Your task to perform on an android device: turn on the 24-hour format for clock Image 0: 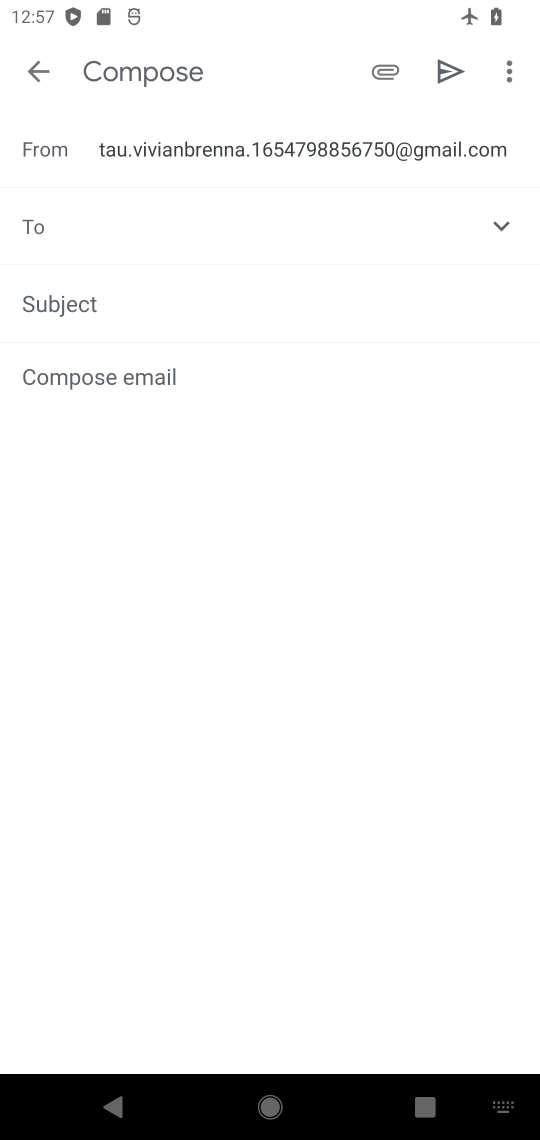
Step 0: press home button
Your task to perform on an android device: turn on the 24-hour format for clock Image 1: 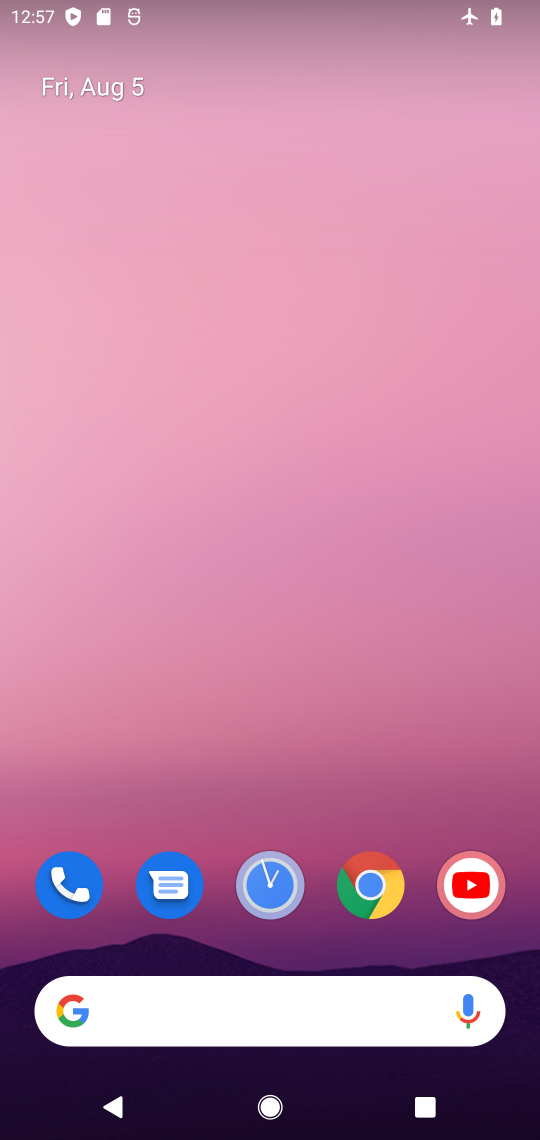
Step 1: drag from (248, 835) to (214, 148)
Your task to perform on an android device: turn on the 24-hour format for clock Image 2: 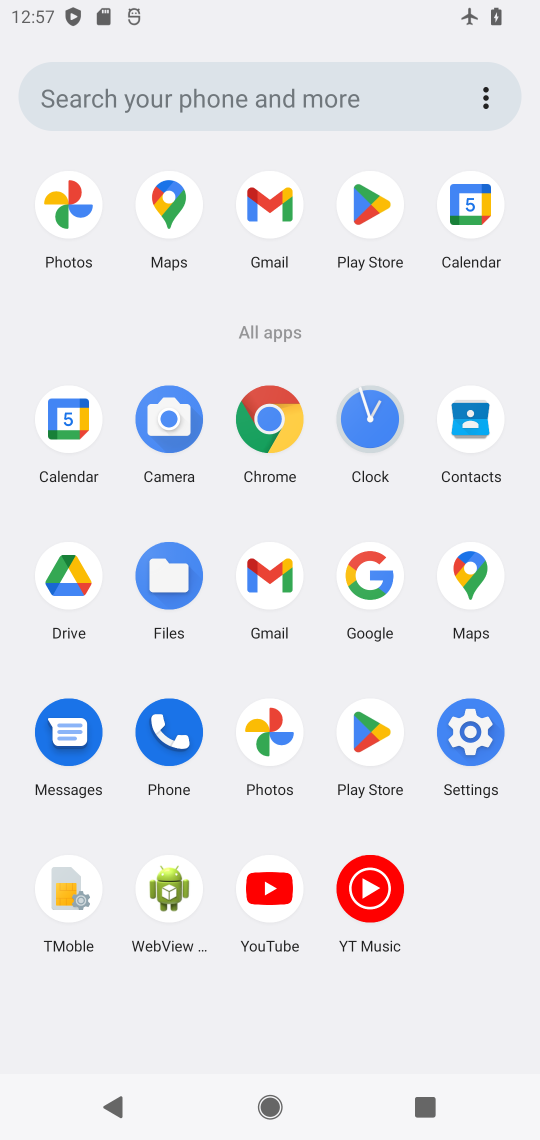
Step 2: click (355, 419)
Your task to perform on an android device: turn on the 24-hour format for clock Image 3: 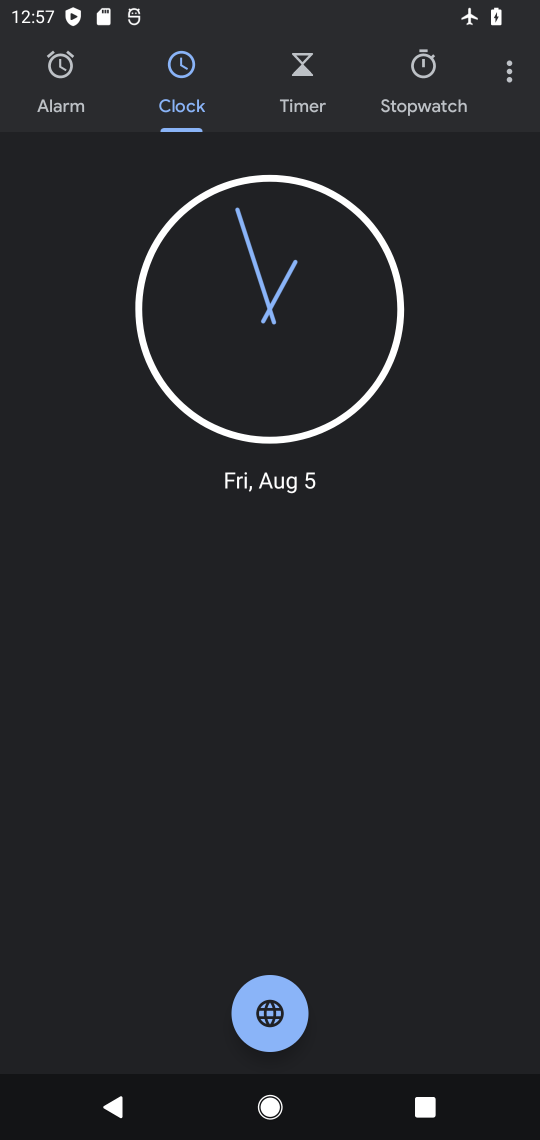
Step 3: click (514, 72)
Your task to perform on an android device: turn on the 24-hour format for clock Image 4: 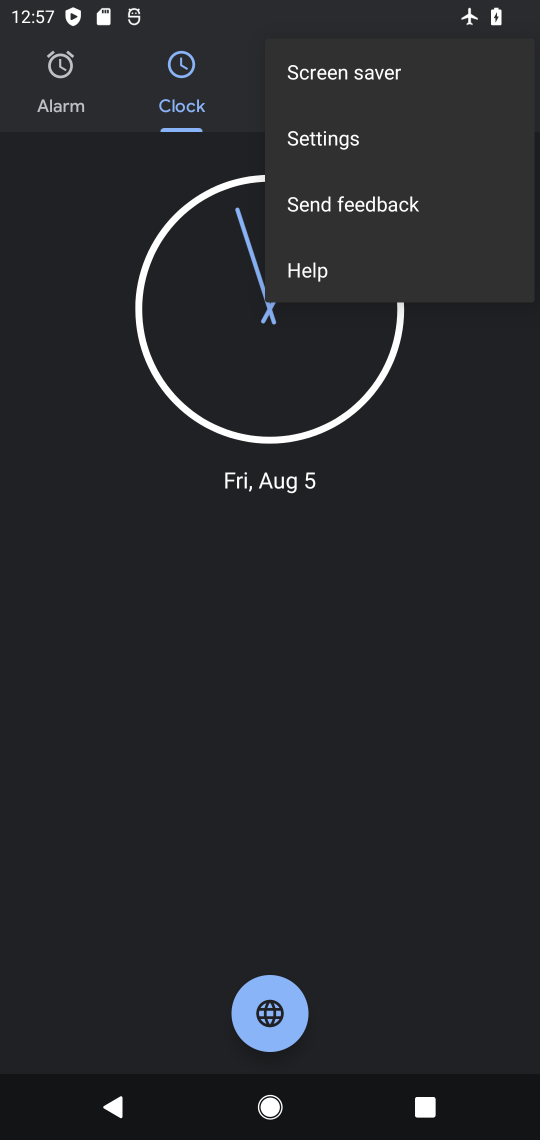
Step 4: click (318, 153)
Your task to perform on an android device: turn on the 24-hour format for clock Image 5: 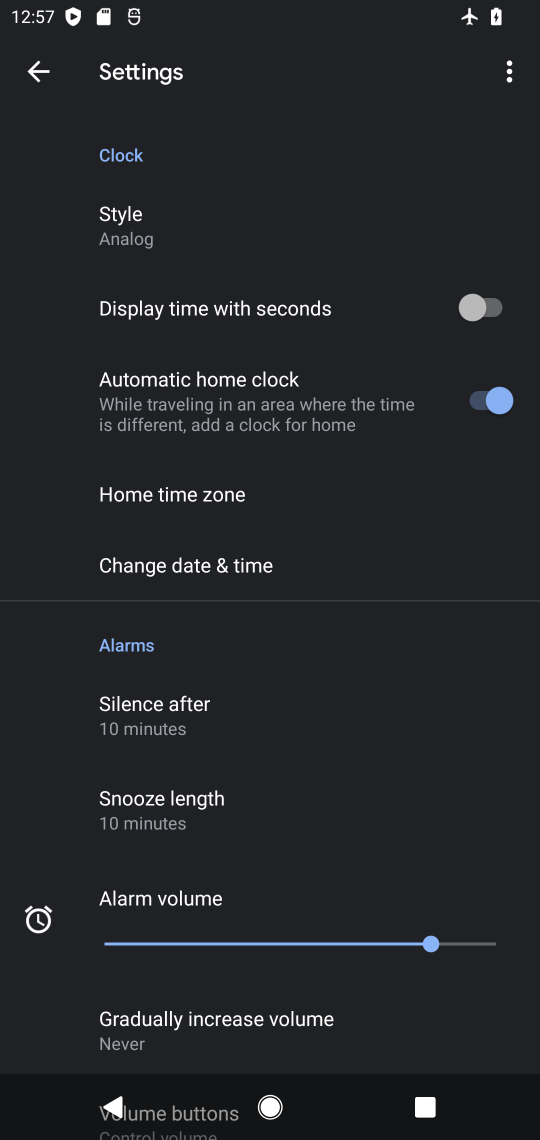
Step 5: click (267, 556)
Your task to perform on an android device: turn on the 24-hour format for clock Image 6: 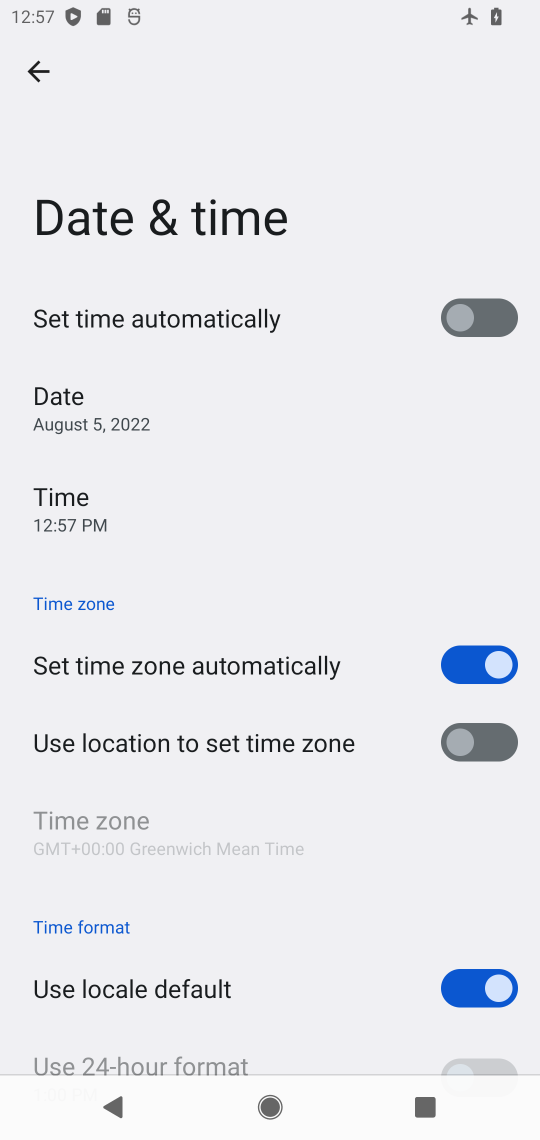
Step 6: click (469, 989)
Your task to perform on an android device: turn on the 24-hour format for clock Image 7: 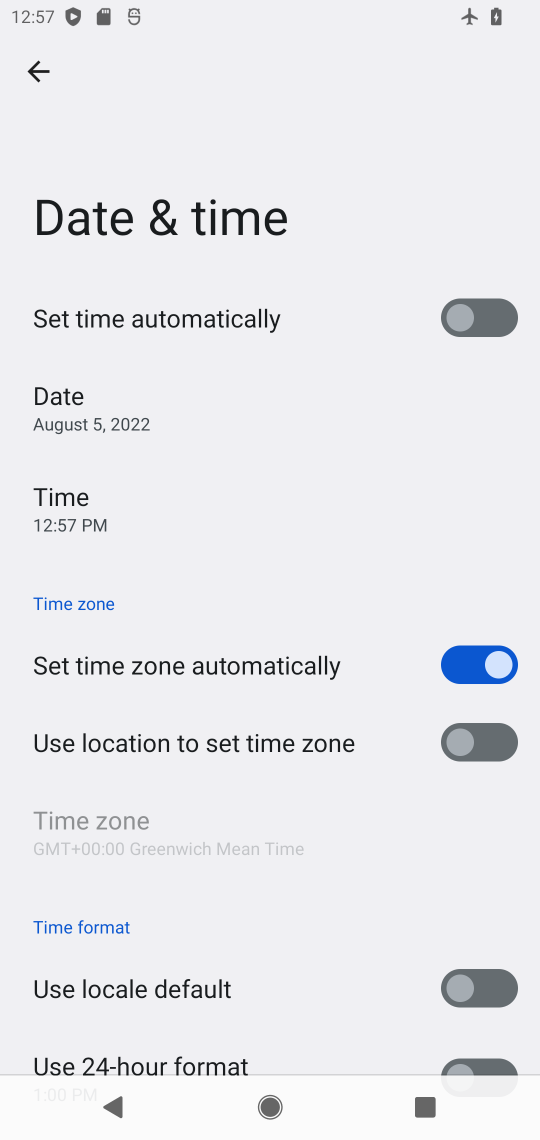
Step 7: click (514, 1067)
Your task to perform on an android device: turn on the 24-hour format for clock Image 8: 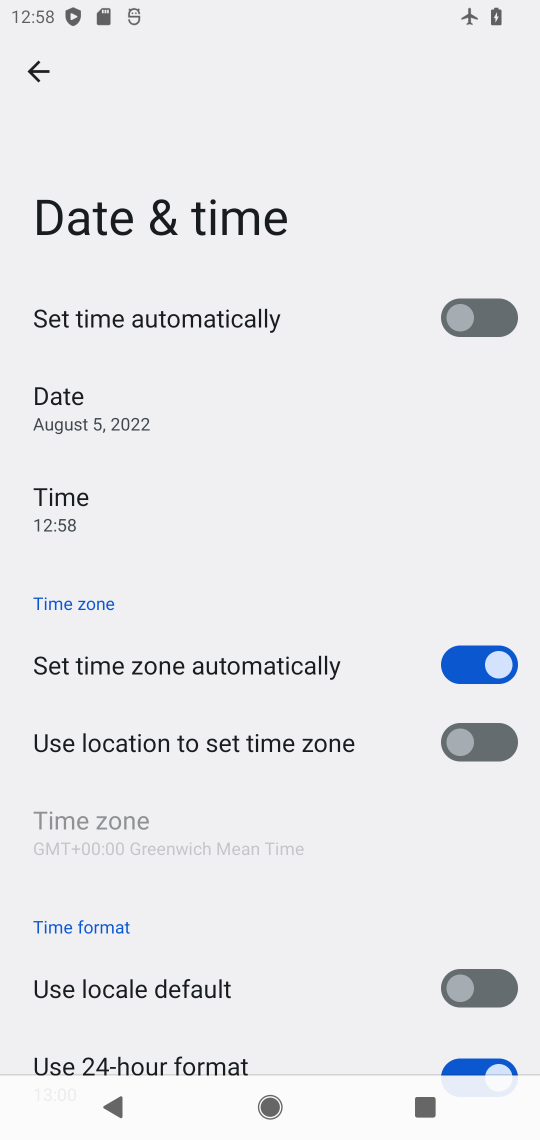
Step 8: task complete